Your task to perform on an android device: Go to wifi settings Image 0: 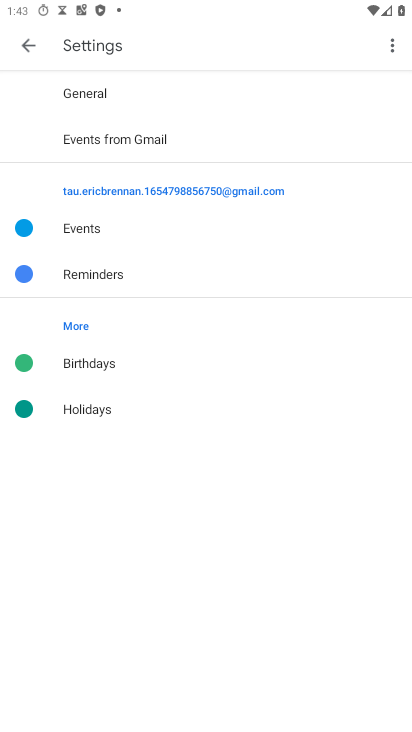
Step 0: press home button
Your task to perform on an android device: Go to wifi settings Image 1: 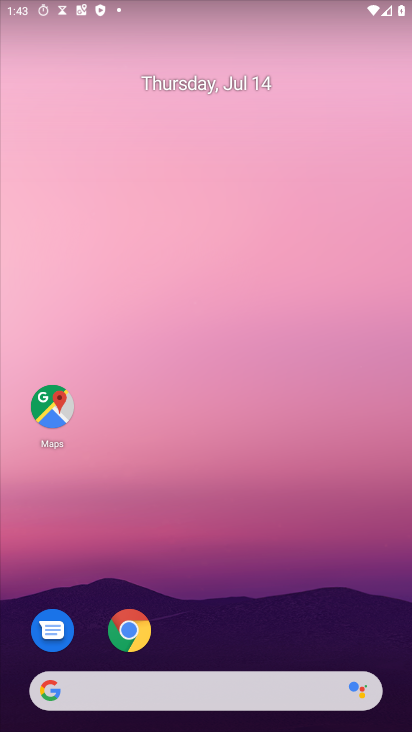
Step 1: drag from (202, 686) to (144, 11)
Your task to perform on an android device: Go to wifi settings Image 2: 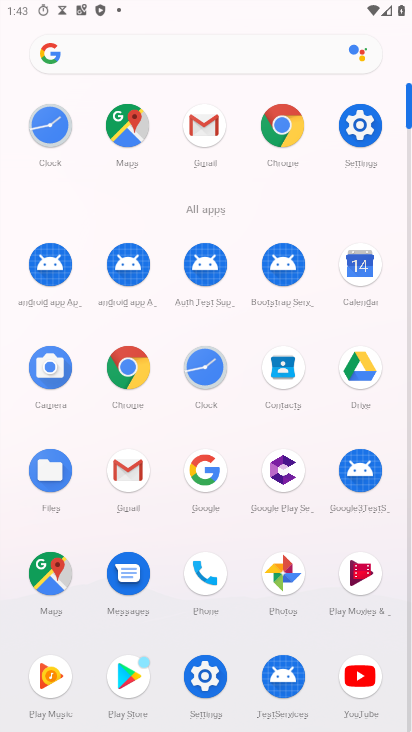
Step 2: click (358, 129)
Your task to perform on an android device: Go to wifi settings Image 3: 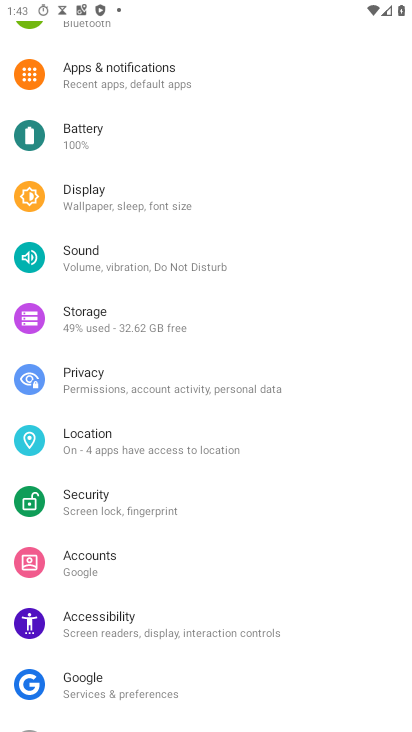
Step 3: drag from (181, 174) to (169, 646)
Your task to perform on an android device: Go to wifi settings Image 4: 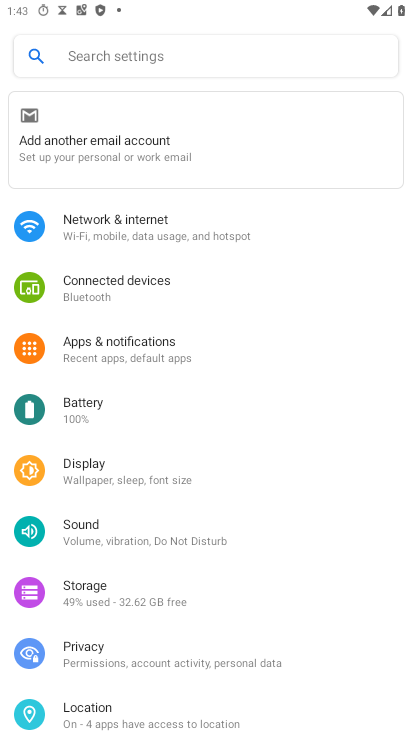
Step 4: click (120, 230)
Your task to perform on an android device: Go to wifi settings Image 5: 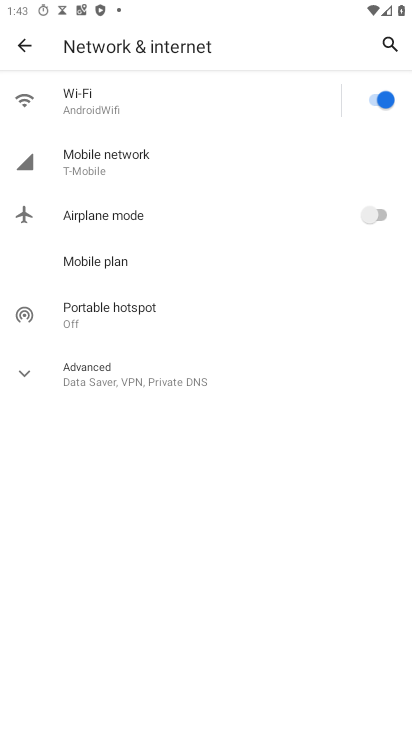
Step 5: click (93, 111)
Your task to perform on an android device: Go to wifi settings Image 6: 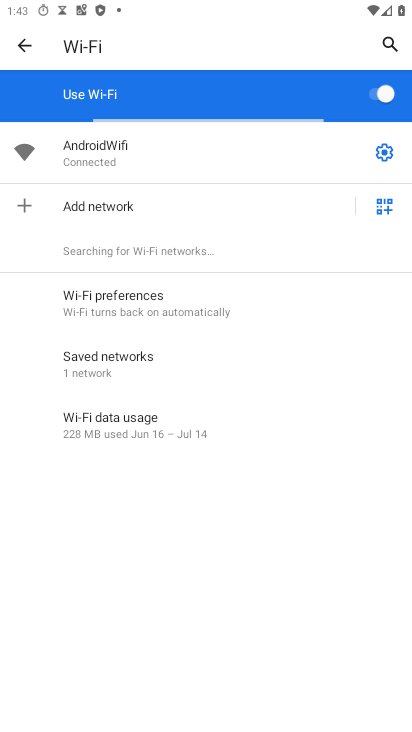
Step 6: task complete